Your task to perform on an android device: Open Google Maps Image 0: 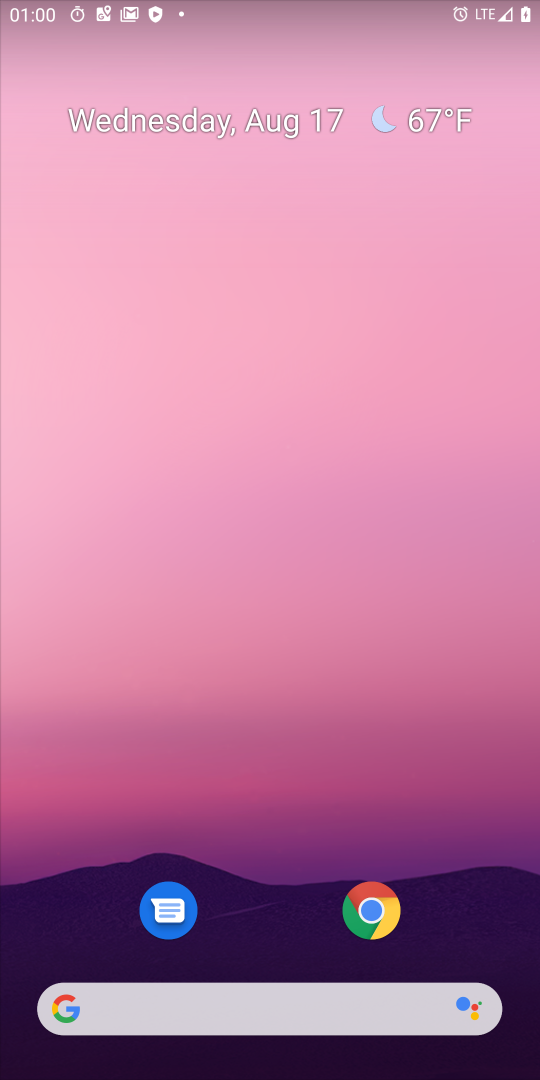
Step 0: drag from (252, 940) to (345, 136)
Your task to perform on an android device: Open Google Maps Image 1: 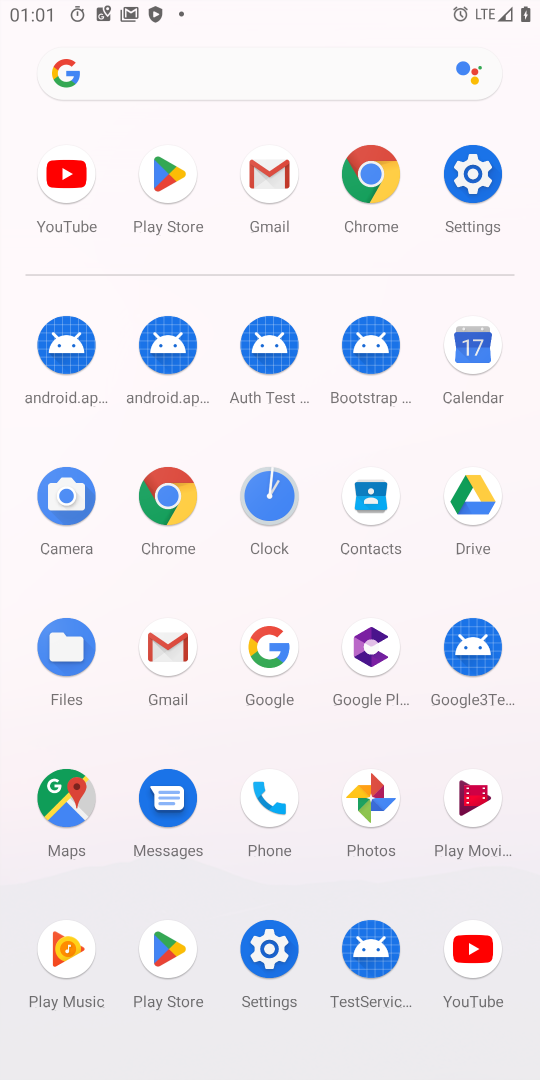
Step 1: click (55, 798)
Your task to perform on an android device: Open Google Maps Image 2: 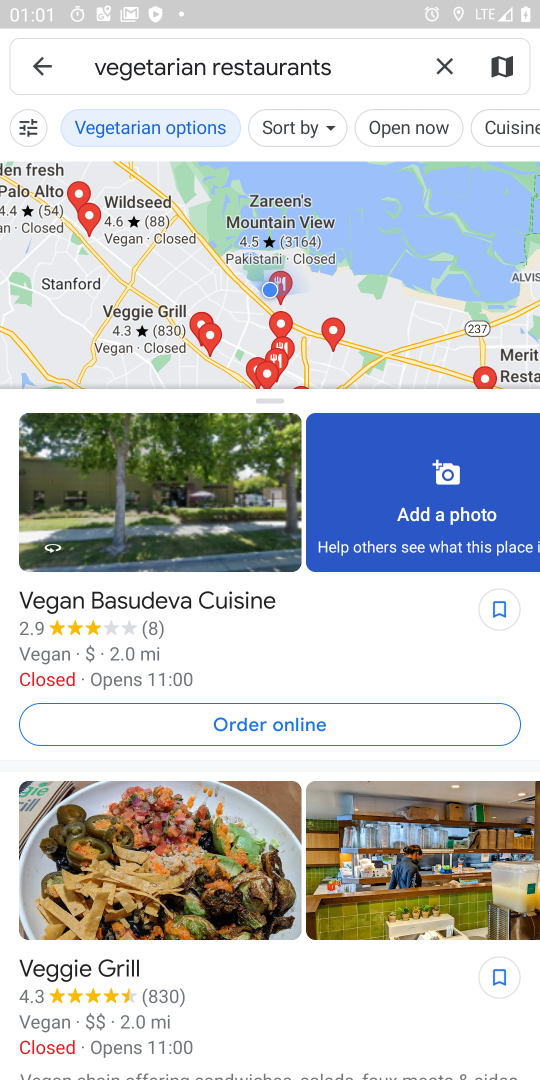
Step 2: task complete